Your task to perform on an android device: add a contact Image 0: 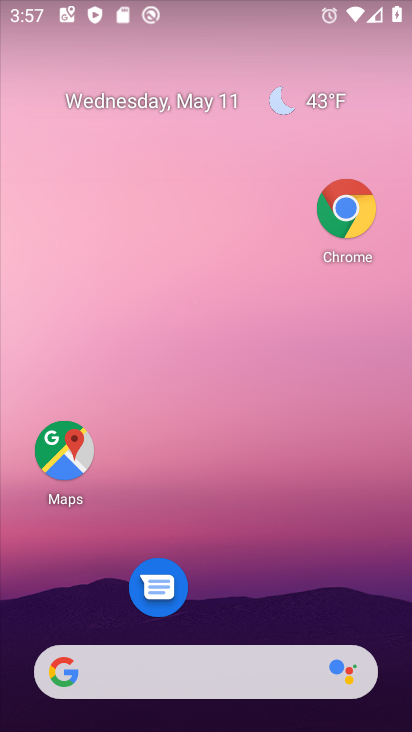
Step 0: drag from (238, 603) to (227, 46)
Your task to perform on an android device: add a contact Image 1: 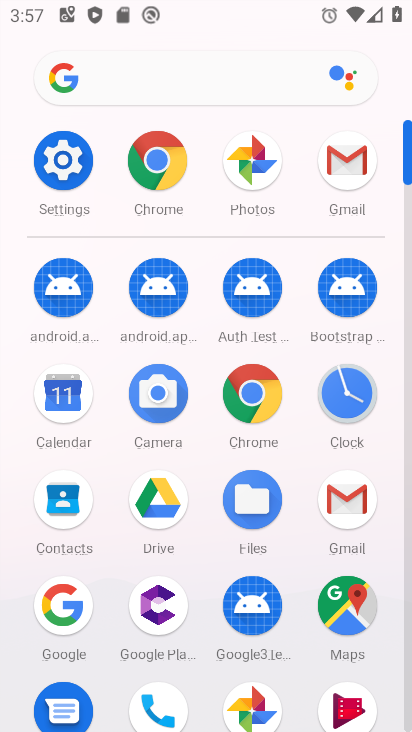
Step 1: click (66, 508)
Your task to perform on an android device: add a contact Image 2: 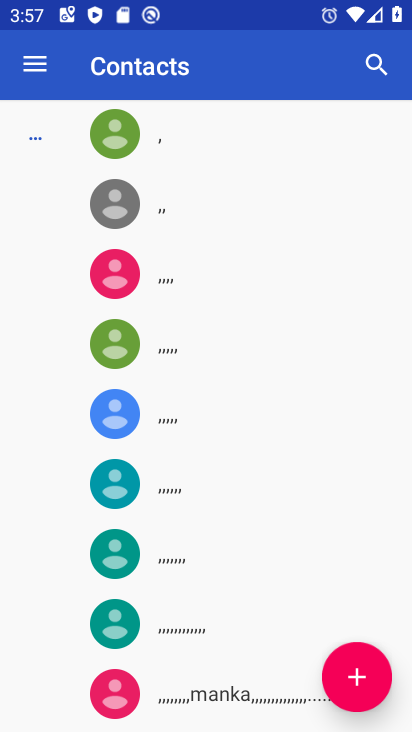
Step 2: click (366, 676)
Your task to perform on an android device: add a contact Image 3: 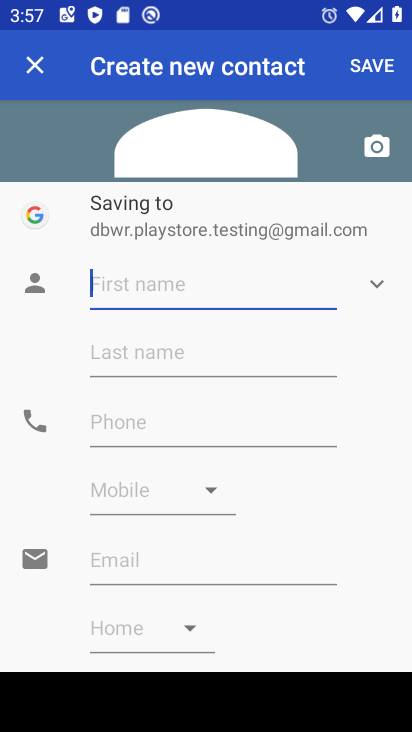
Step 3: type "gcgd"
Your task to perform on an android device: add a contact Image 4: 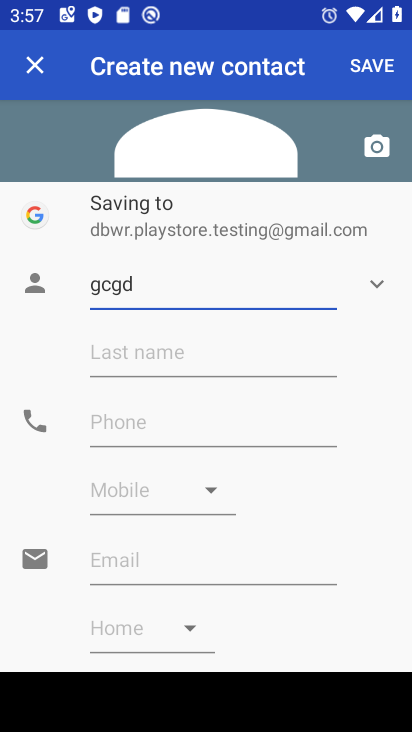
Step 4: click (147, 428)
Your task to perform on an android device: add a contact Image 5: 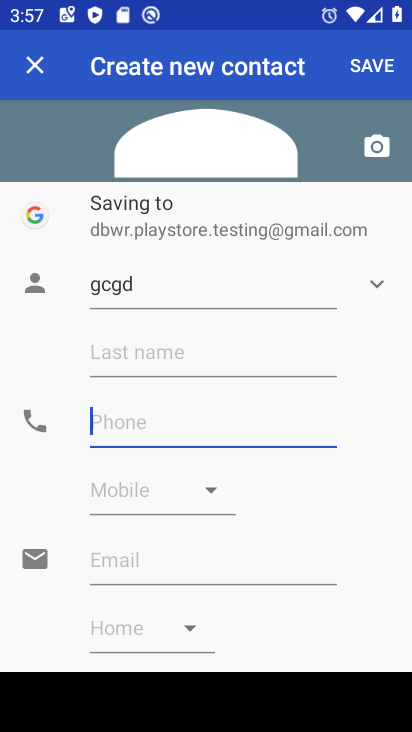
Step 5: type "5467678687"
Your task to perform on an android device: add a contact Image 6: 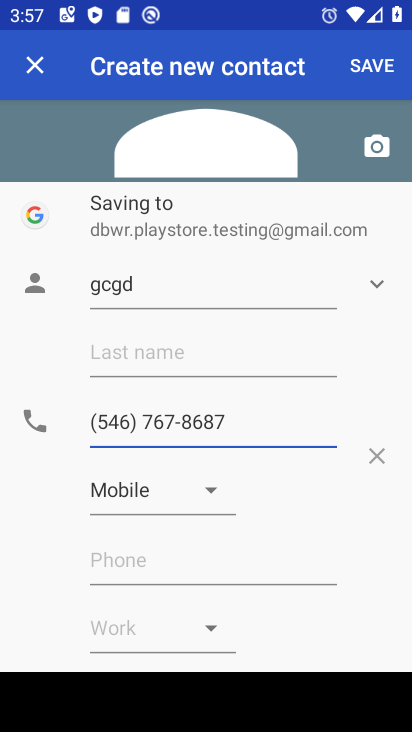
Step 6: click (383, 59)
Your task to perform on an android device: add a contact Image 7: 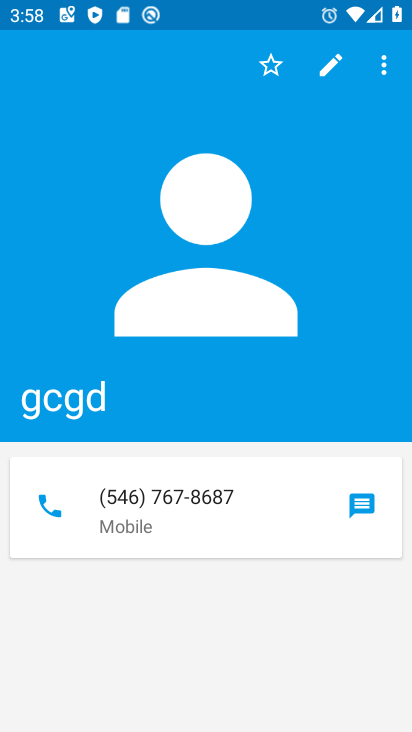
Step 7: task complete